Your task to perform on an android device: Open Chrome and go to the settings page Image 0: 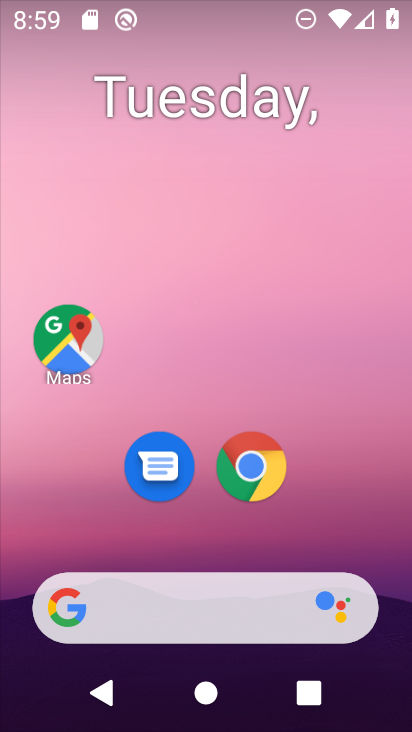
Step 0: click (253, 478)
Your task to perform on an android device: Open Chrome and go to the settings page Image 1: 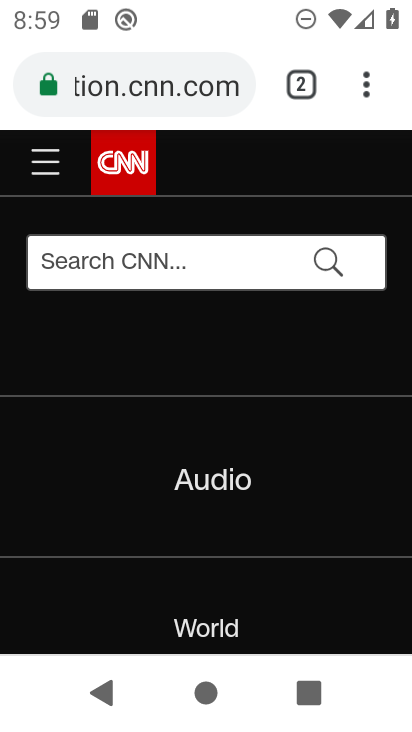
Step 1: click (364, 78)
Your task to perform on an android device: Open Chrome and go to the settings page Image 2: 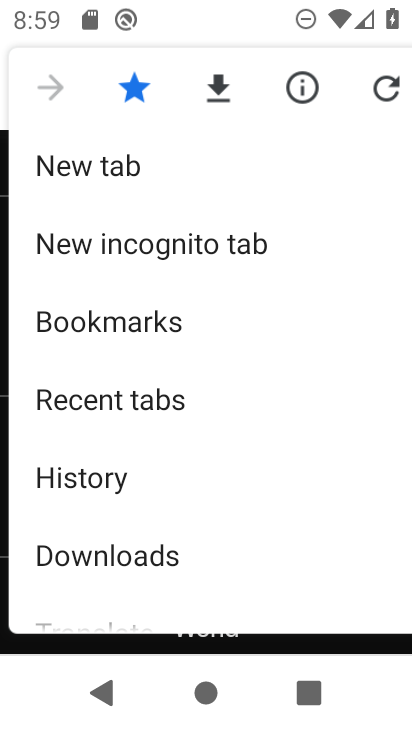
Step 2: drag from (144, 499) to (195, 80)
Your task to perform on an android device: Open Chrome and go to the settings page Image 3: 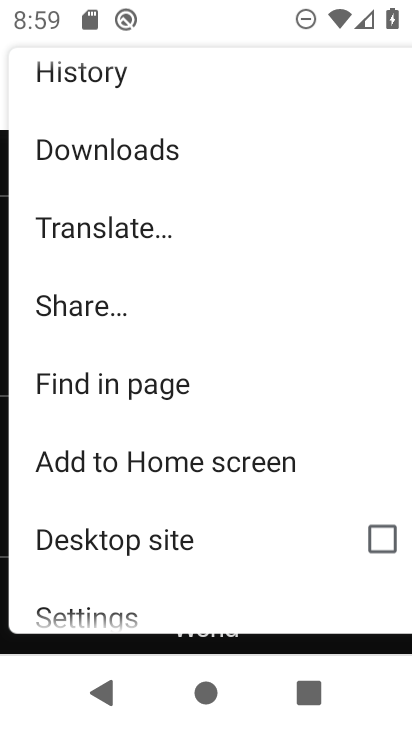
Step 3: drag from (153, 533) to (178, 256)
Your task to perform on an android device: Open Chrome and go to the settings page Image 4: 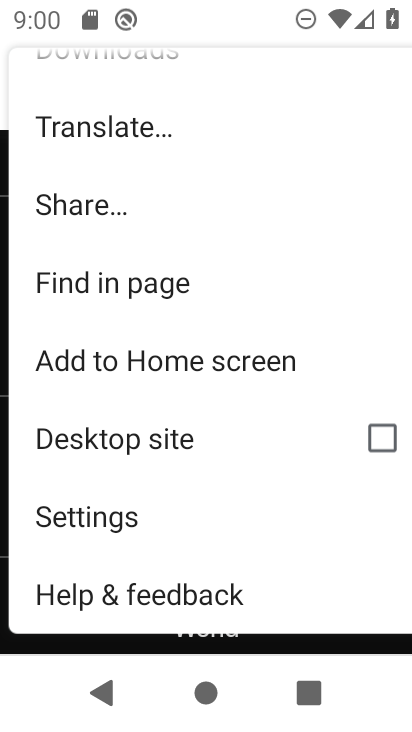
Step 4: click (95, 542)
Your task to perform on an android device: Open Chrome and go to the settings page Image 5: 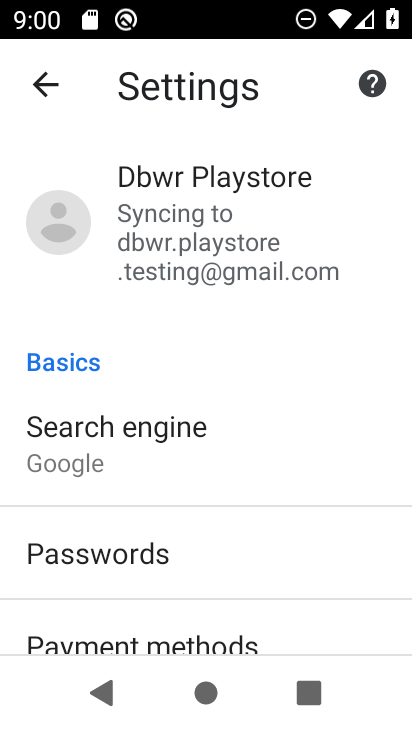
Step 5: task complete